Your task to perform on an android device: check out phone information Image 0: 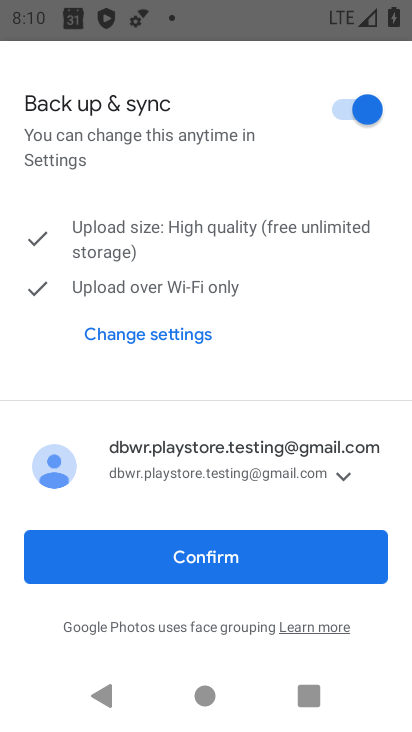
Step 0: press home button
Your task to perform on an android device: check out phone information Image 1: 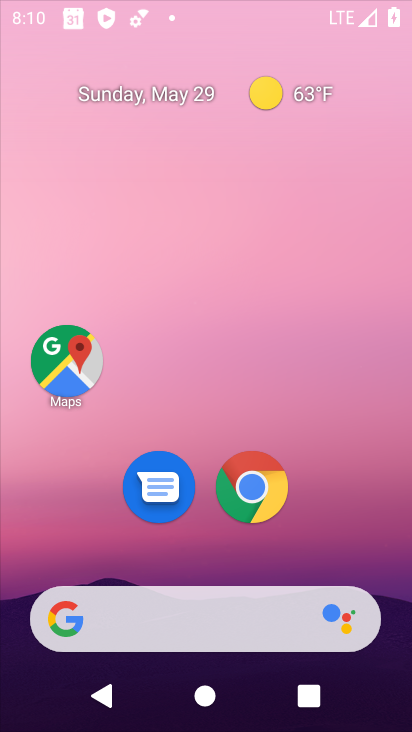
Step 1: drag from (207, 575) to (246, 125)
Your task to perform on an android device: check out phone information Image 2: 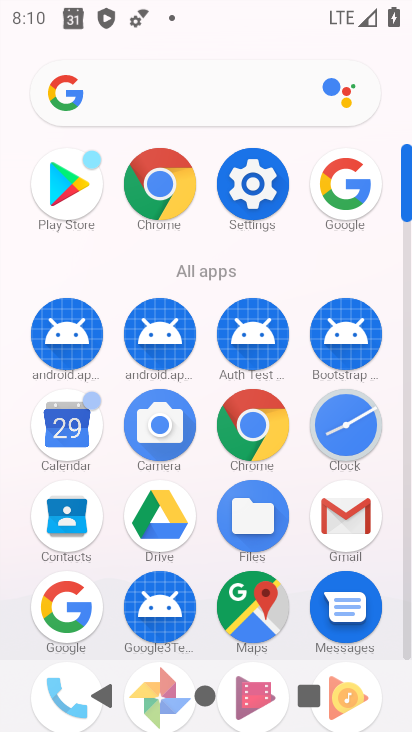
Step 2: click (263, 194)
Your task to perform on an android device: check out phone information Image 3: 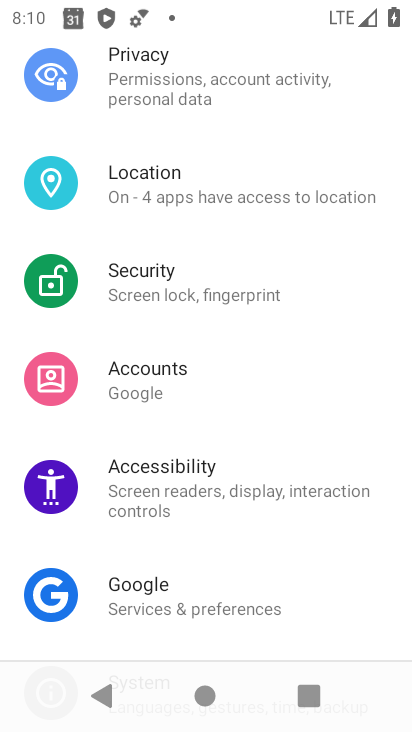
Step 3: drag from (245, 540) to (299, 177)
Your task to perform on an android device: check out phone information Image 4: 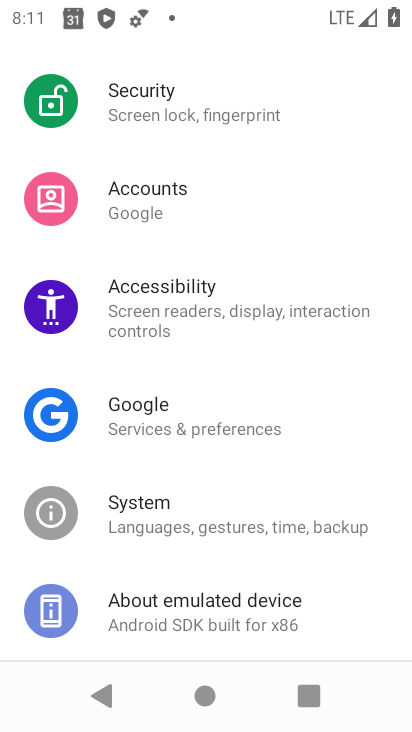
Step 4: drag from (112, 569) to (229, 146)
Your task to perform on an android device: check out phone information Image 5: 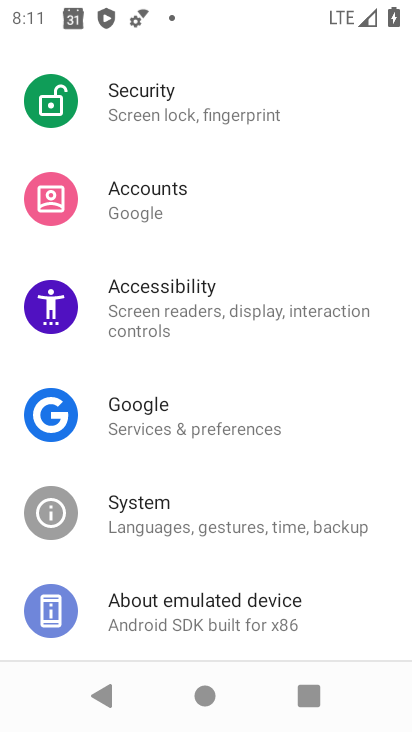
Step 5: click (211, 612)
Your task to perform on an android device: check out phone information Image 6: 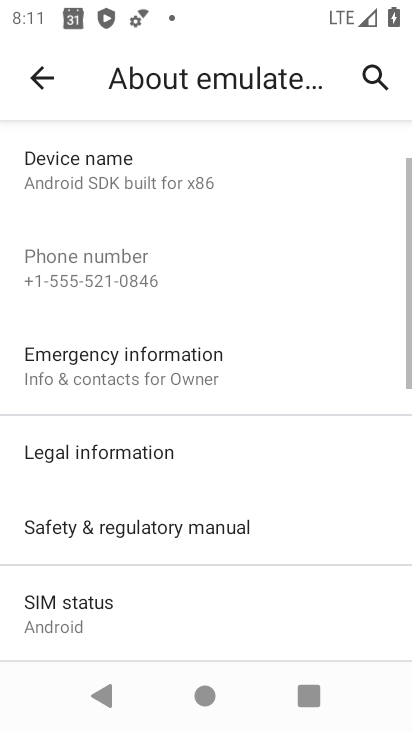
Step 6: task complete